Your task to perform on an android device: stop showing notifications on the lock screen Image 0: 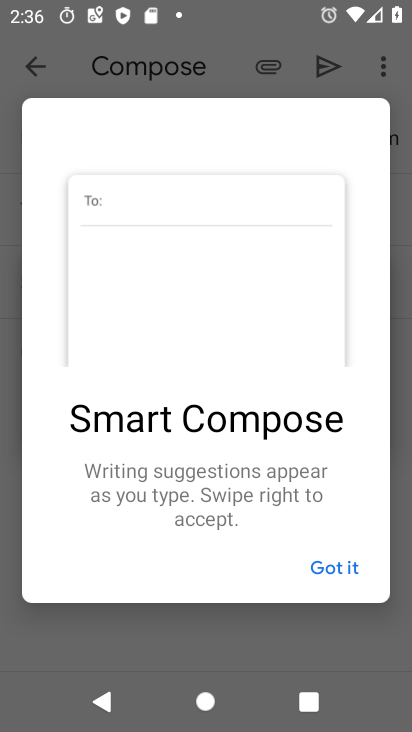
Step 0: press home button
Your task to perform on an android device: stop showing notifications on the lock screen Image 1: 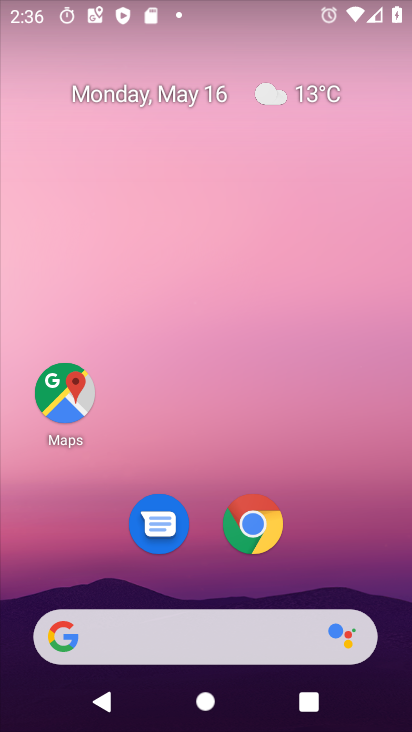
Step 1: drag from (329, 535) to (268, 89)
Your task to perform on an android device: stop showing notifications on the lock screen Image 2: 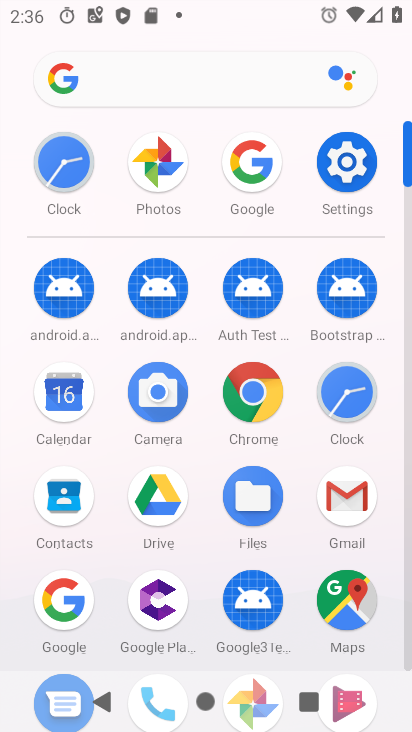
Step 2: click (331, 152)
Your task to perform on an android device: stop showing notifications on the lock screen Image 3: 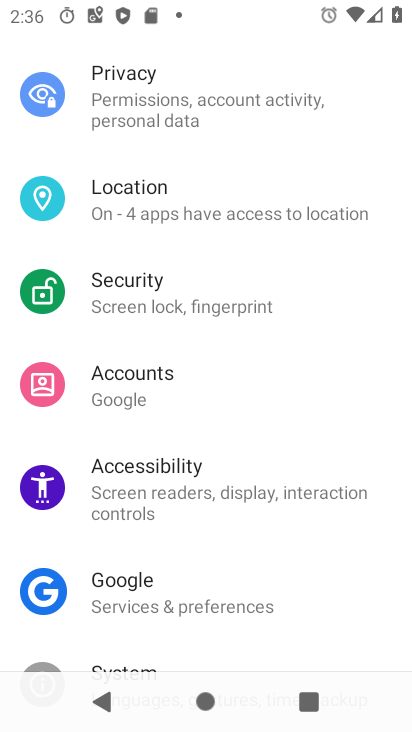
Step 3: drag from (248, 190) to (254, 532)
Your task to perform on an android device: stop showing notifications on the lock screen Image 4: 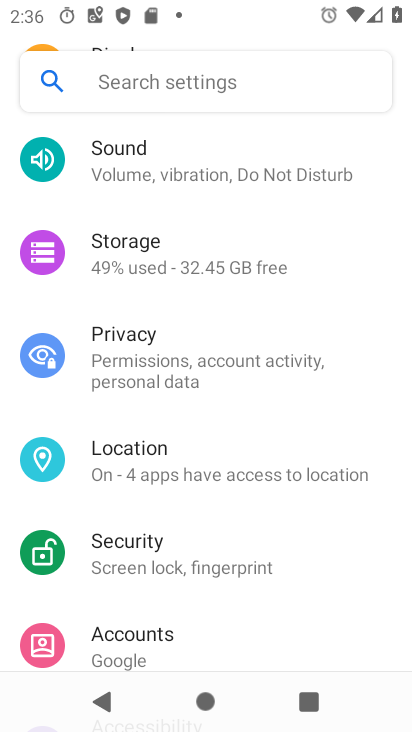
Step 4: drag from (277, 241) to (265, 546)
Your task to perform on an android device: stop showing notifications on the lock screen Image 5: 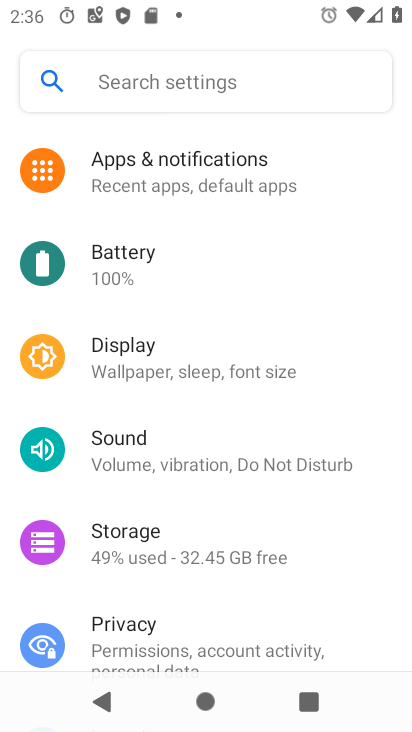
Step 5: click (231, 151)
Your task to perform on an android device: stop showing notifications on the lock screen Image 6: 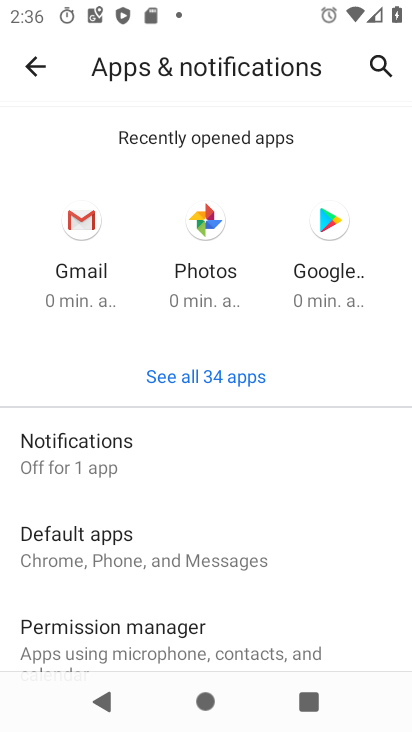
Step 6: click (150, 435)
Your task to perform on an android device: stop showing notifications on the lock screen Image 7: 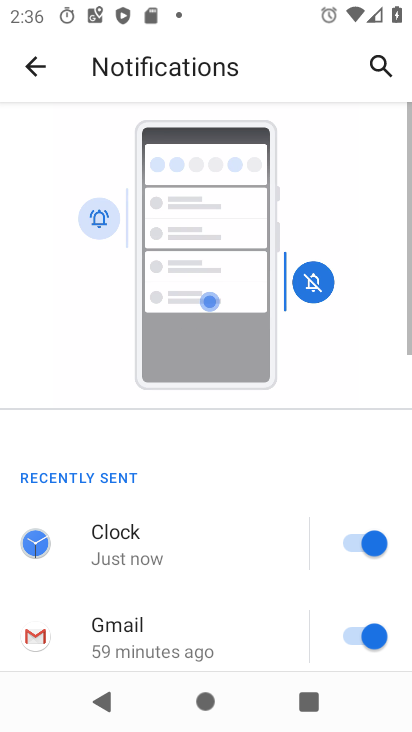
Step 7: drag from (266, 594) to (274, 219)
Your task to perform on an android device: stop showing notifications on the lock screen Image 8: 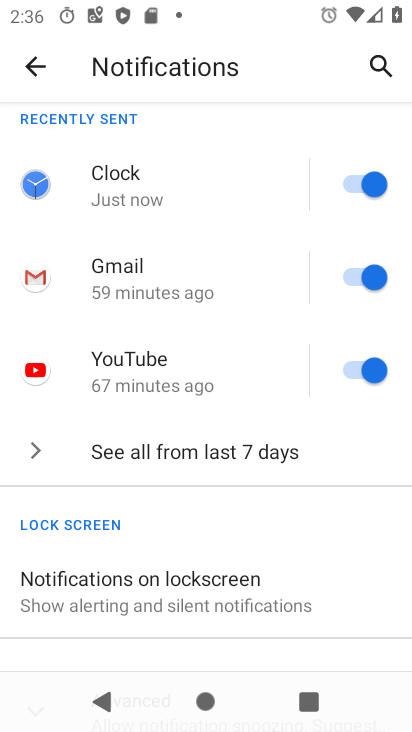
Step 8: click (233, 587)
Your task to perform on an android device: stop showing notifications on the lock screen Image 9: 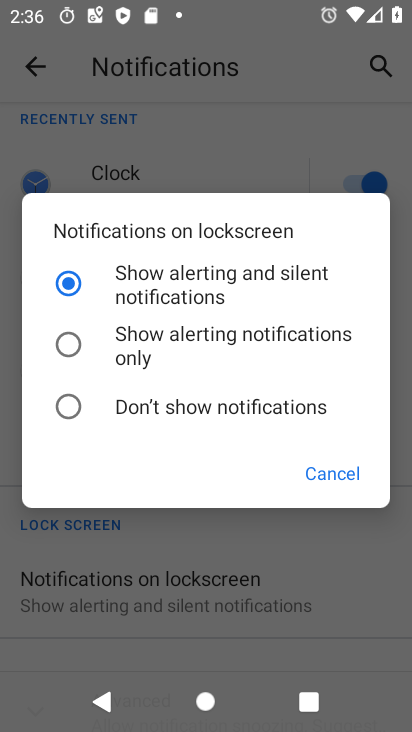
Step 9: click (54, 383)
Your task to perform on an android device: stop showing notifications on the lock screen Image 10: 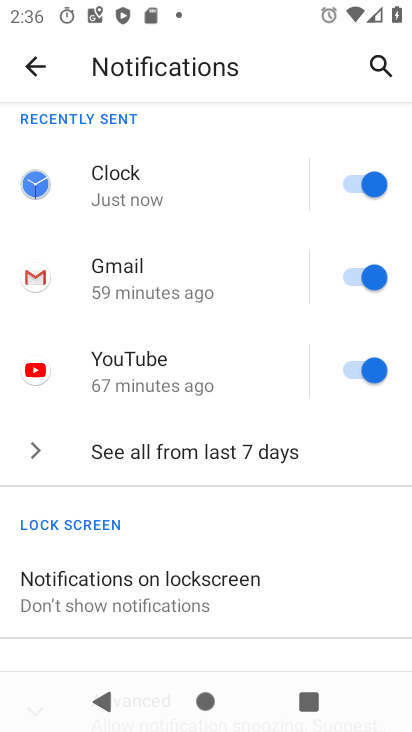
Step 10: task complete